Your task to perform on an android device: Go to accessibility settings Image 0: 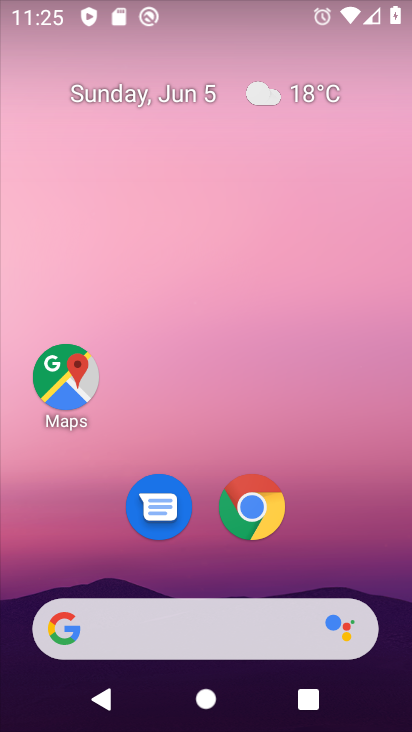
Step 0: drag from (242, 565) to (242, 100)
Your task to perform on an android device: Go to accessibility settings Image 1: 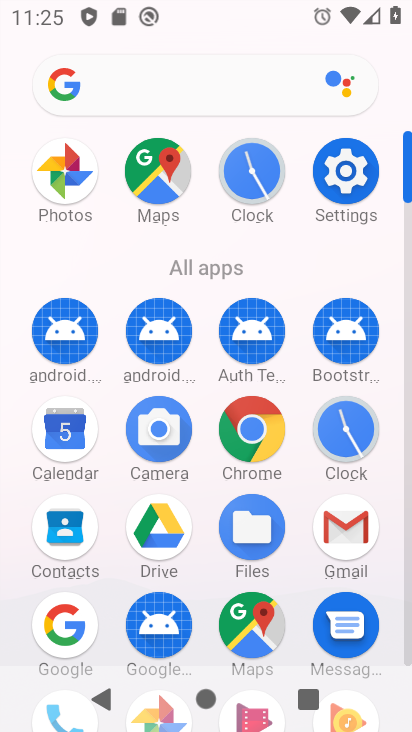
Step 1: click (341, 170)
Your task to perform on an android device: Go to accessibility settings Image 2: 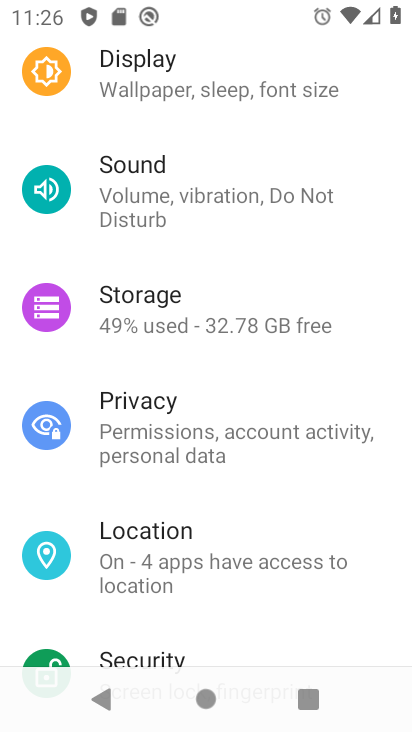
Step 2: drag from (219, 642) to (182, 149)
Your task to perform on an android device: Go to accessibility settings Image 3: 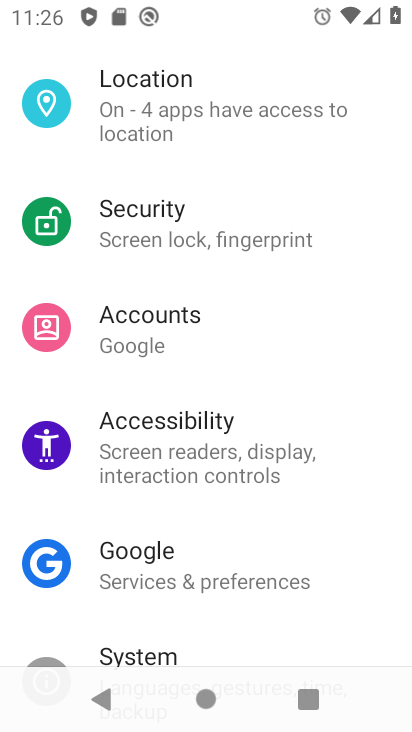
Step 3: click (157, 447)
Your task to perform on an android device: Go to accessibility settings Image 4: 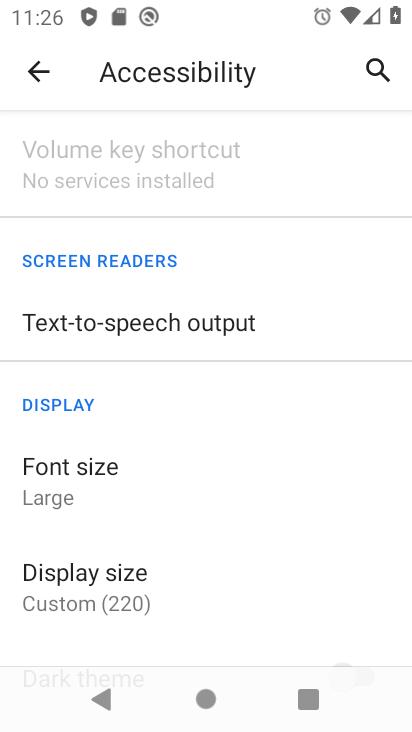
Step 4: task complete